Your task to perform on an android device: manage bookmarks in the chrome app Image 0: 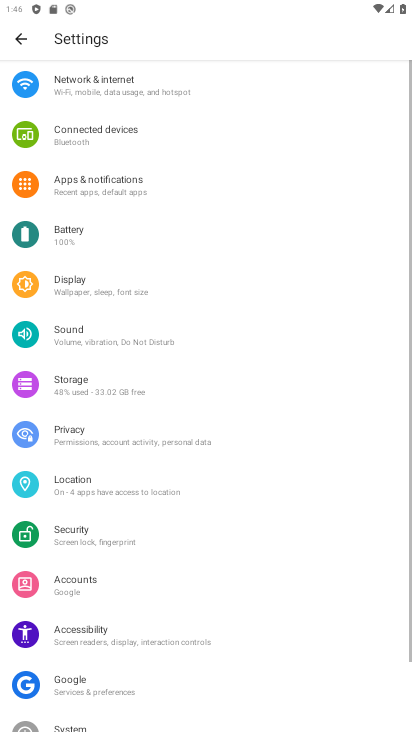
Step 0: press home button
Your task to perform on an android device: manage bookmarks in the chrome app Image 1: 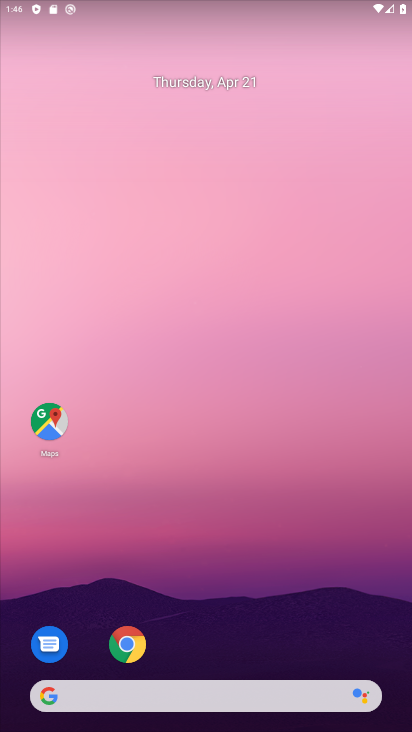
Step 1: click (121, 654)
Your task to perform on an android device: manage bookmarks in the chrome app Image 2: 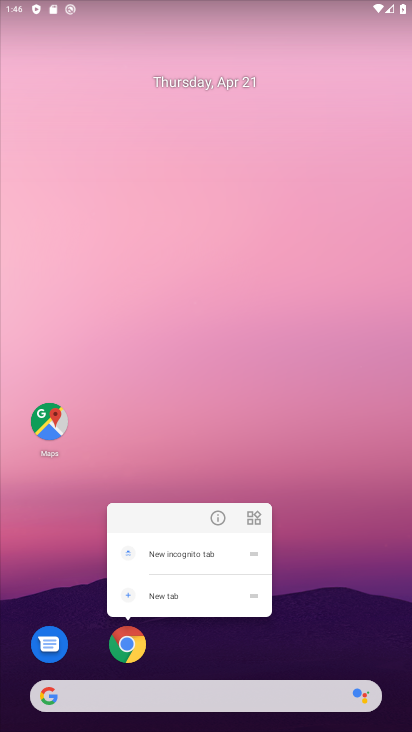
Step 2: click (121, 654)
Your task to perform on an android device: manage bookmarks in the chrome app Image 3: 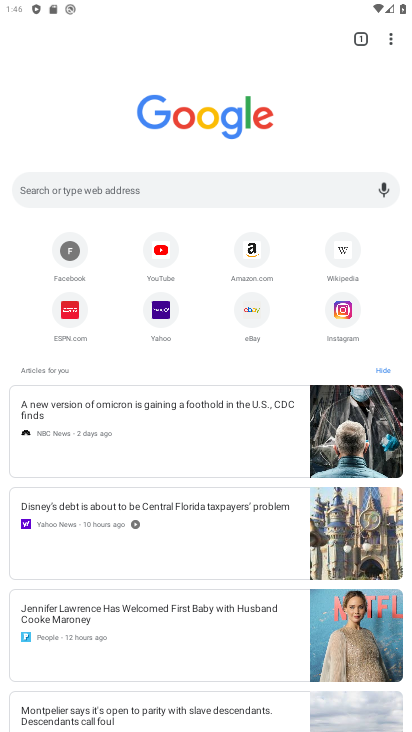
Step 3: click (393, 37)
Your task to perform on an android device: manage bookmarks in the chrome app Image 4: 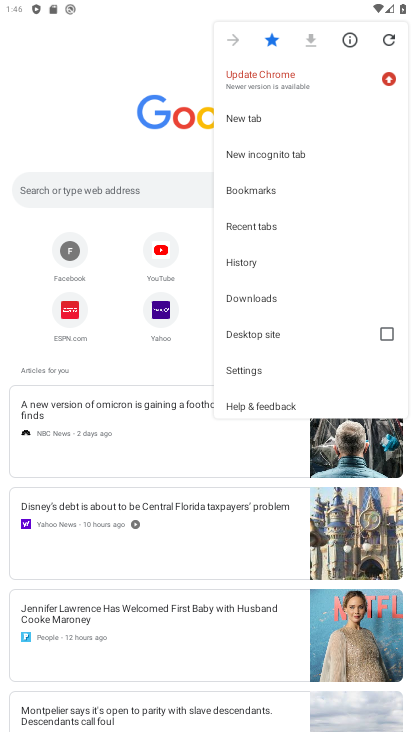
Step 4: click (329, 185)
Your task to perform on an android device: manage bookmarks in the chrome app Image 5: 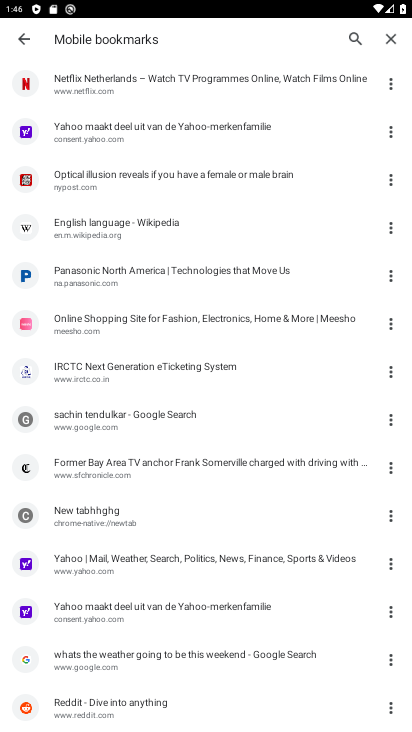
Step 5: click (245, 89)
Your task to perform on an android device: manage bookmarks in the chrome app Image 6: 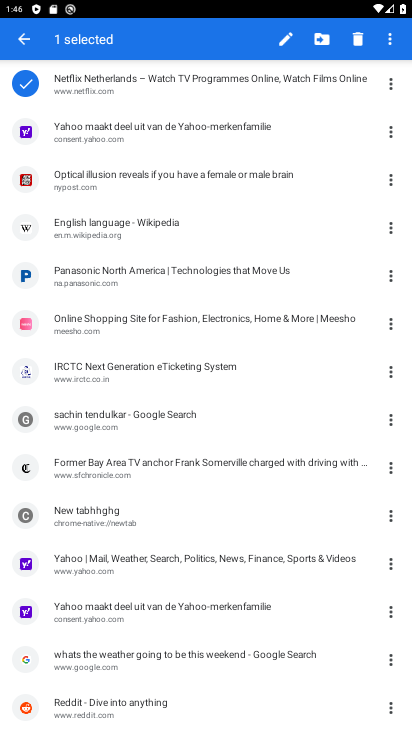
Step 6: click (323, 40)
Your task to perform on an android device: manage bookmarks in the chrome app Image 7: 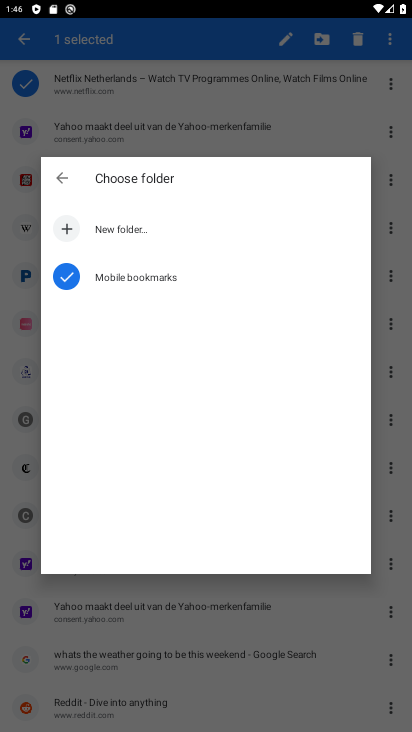
Step 7: click (219, 288)
Your task to perform on an android device: manage bookmarks in the chrome app Image 8: 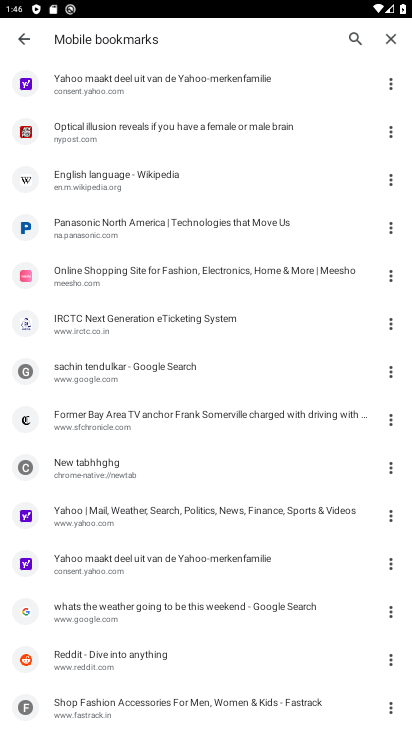
Step 8: task complete